Your task to perform on an android device: Go to settings Image 0: 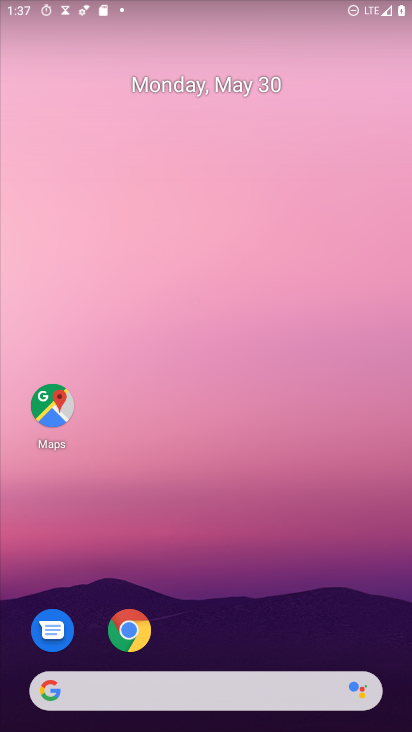
Step 0: drag from (264, 702) to (289, 160)
Your task to perform on an android device: Go to settings Image 1: 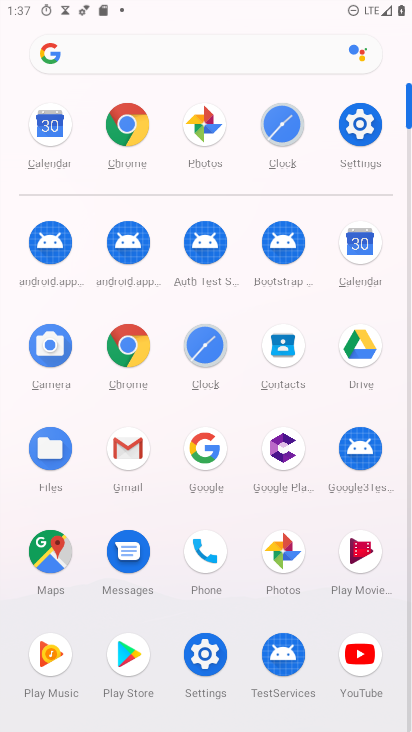
Step 1: click (369, 122)
Your task to perform on an android device: Go to settings Image 2: 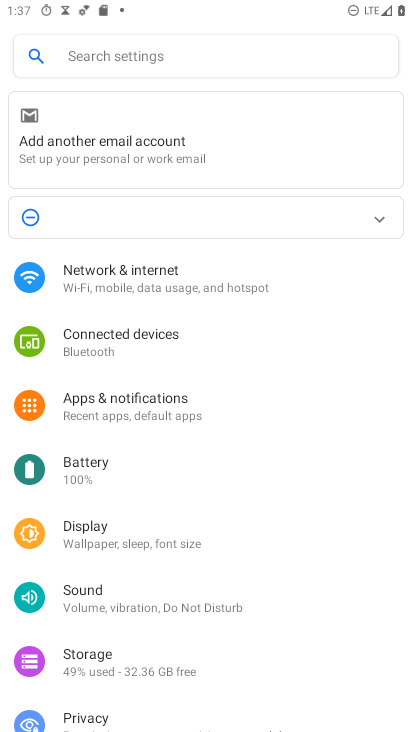
Step 2: task complete